Your task to perform on an android device: Open Wikipedia Image 0: 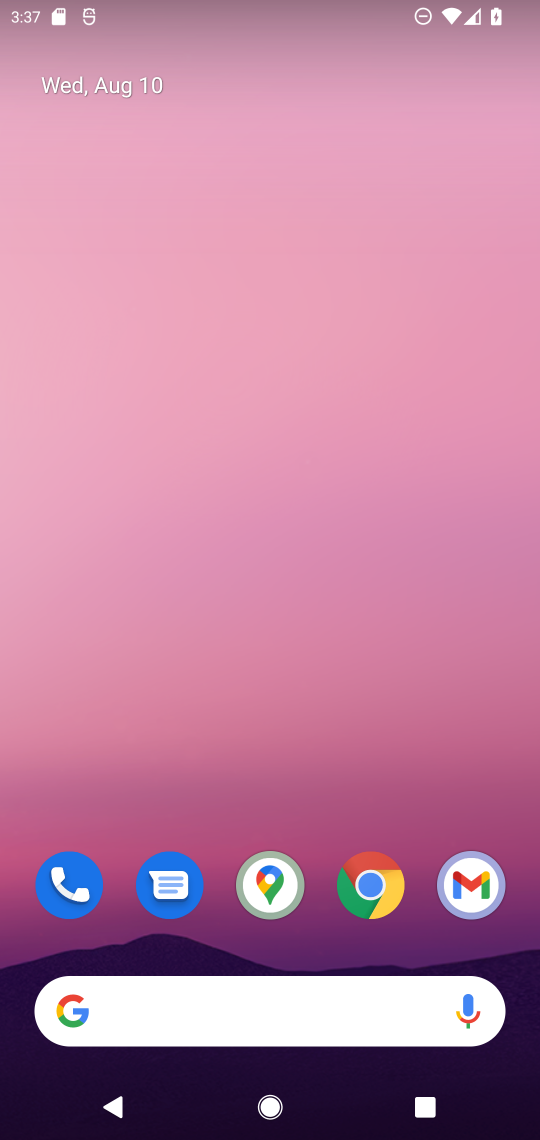
Step 0: click (376, 894)
Your task to perform on an android device: Open Wikipedia Image 1: 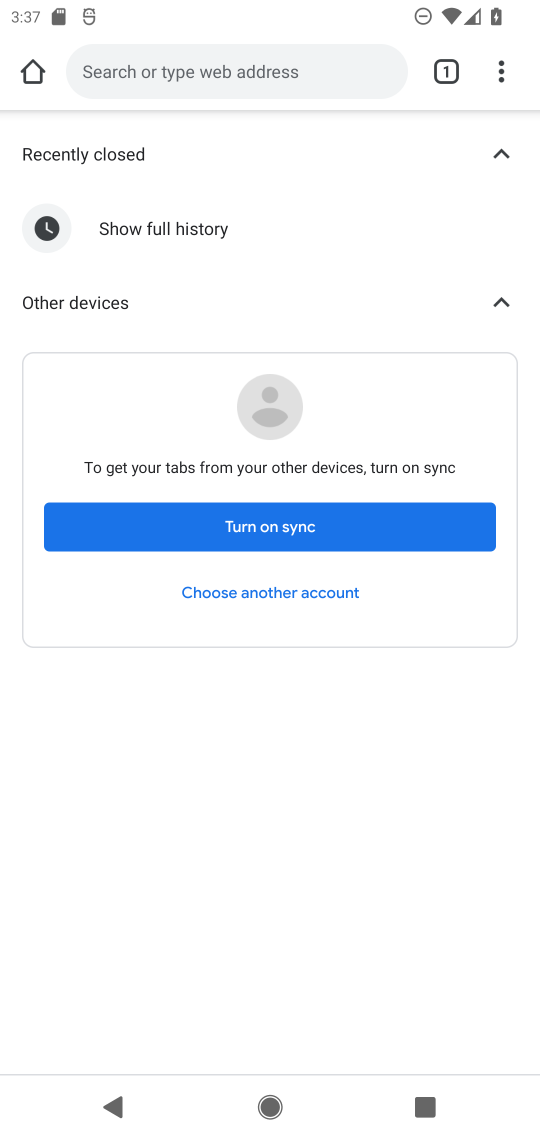
Step 1: click (501, 72)
Your task to perform on an android device: Open Wikipedia Image 2: 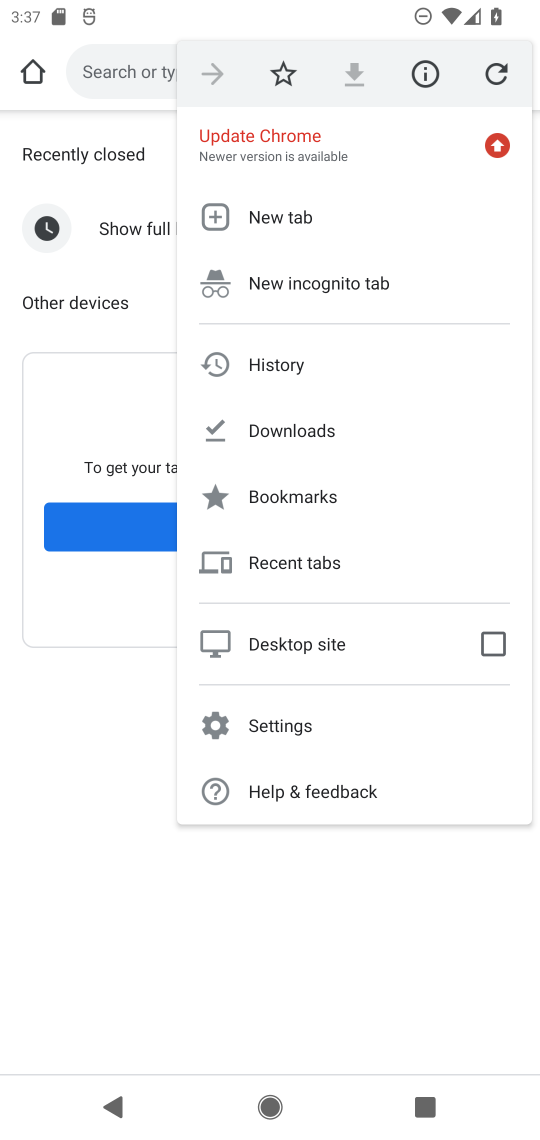
Step 2: click (286, 216)
Your task to perform on an android device: Open Wikipedia Image 3: 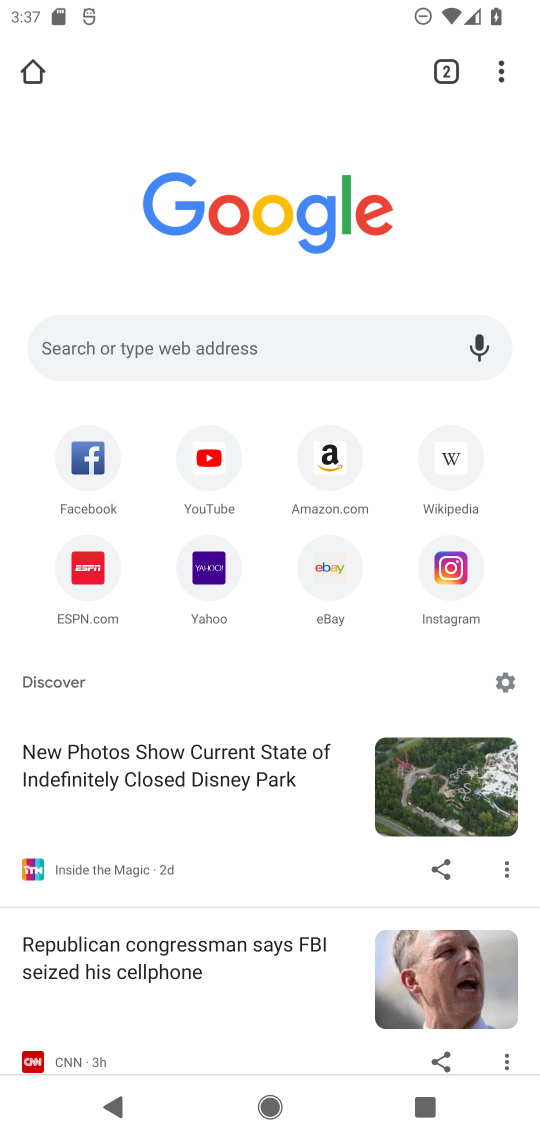
Step 3: click (445, 469)
Your task to perform on an android device: Open Wikipedia Image 4: 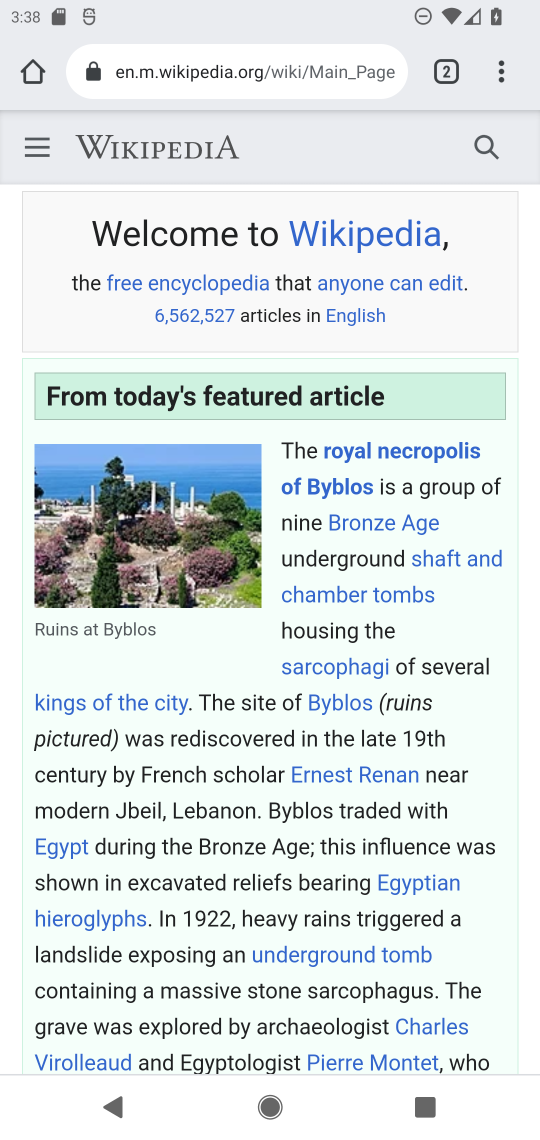
Step 4: task complete